Your task to perform on an android device: Go to network settings Image 0: 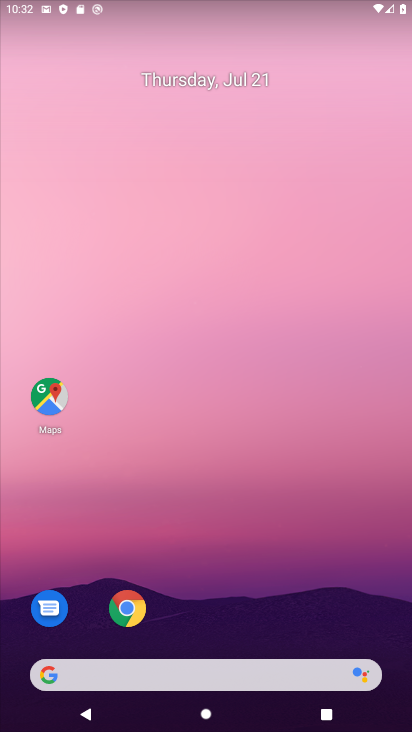
Step 0: drag from (174, 584) to (175, 19)
Your task to perform on an android device: Go to network settings Image 1: 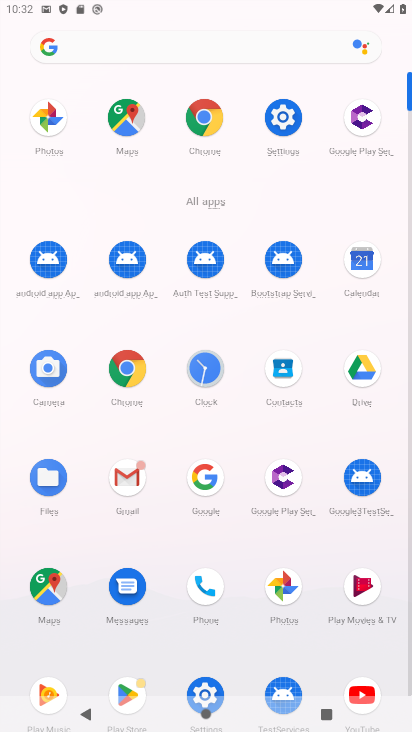
Step 1: click (283, 122)
Your task to perform on an android device: Go to network settings Image 2: 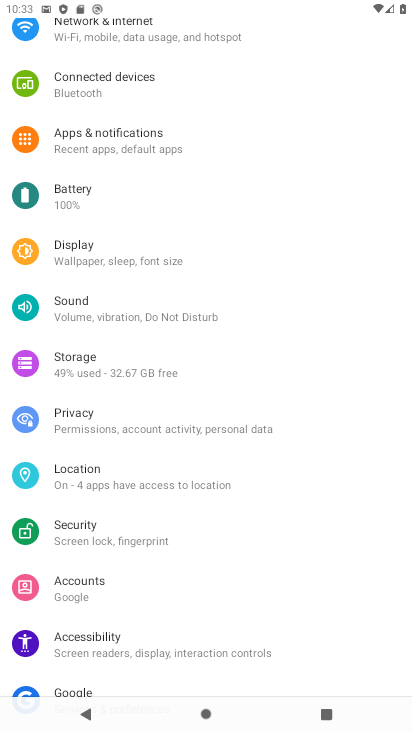
Step 2: click (120, 36)
Your task to perform on an android device: Go to network settings Image 3: 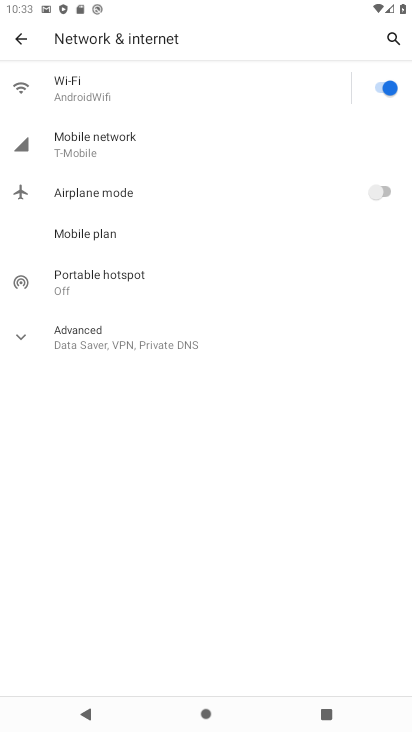
Step 3: task complete